Your task to perform on an android device: What's on my calendar tomorrow? Image 0: 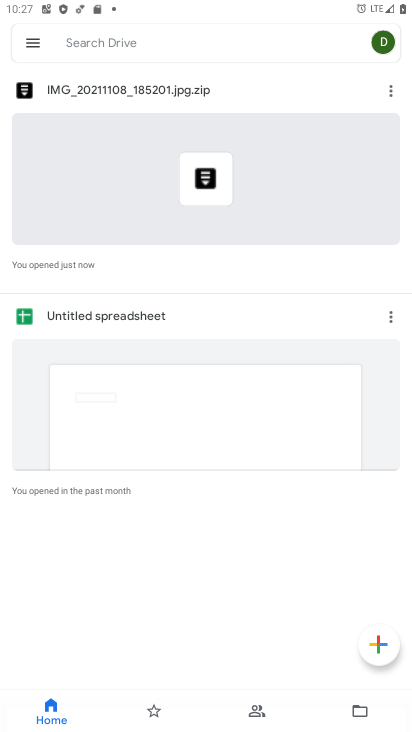
Step 0: press home button
Your task to perform on an android device: What's on my calendar tomorrow? Image 1: 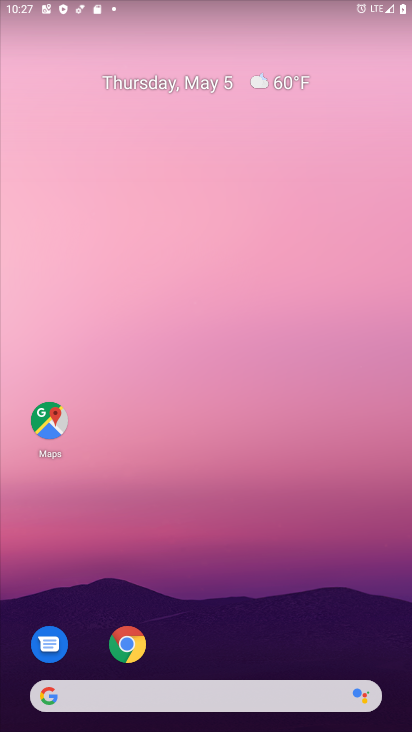
Step 1: drag from (228, 589) to (287, 99)
Your task to perform on an android device: What's on my calendar tomorrow? Image 2: 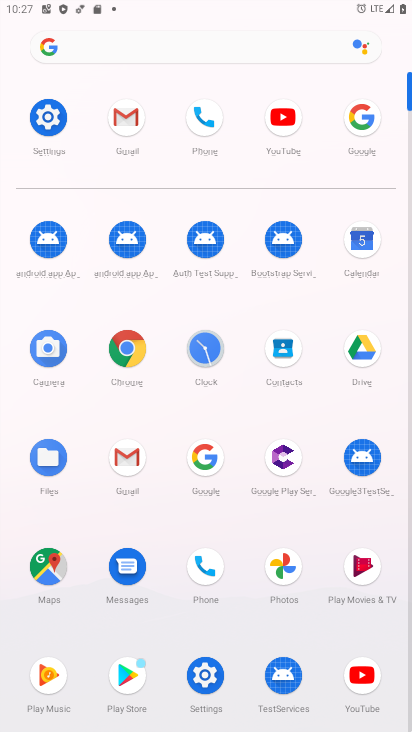
Step 2: click (352, 244)
Your task to perform on an android device: What's on my calendar tomorrow? Image 3: 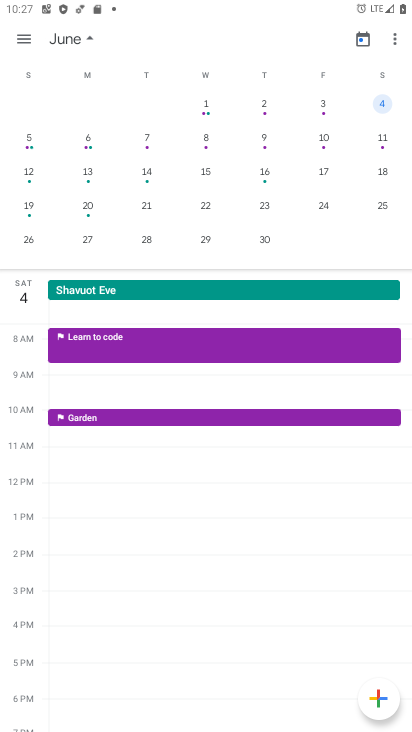
Step 3: drag from (69, 170) to (405, 198)
Your task to perform on an android device: What's on my calendar tomorrow? Image 4: 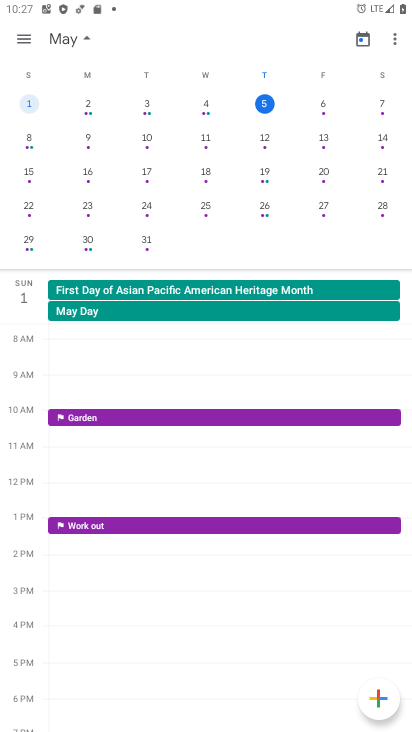
Step 4: click (320, 111)
Your task to perform on an android device: What's on my calendar tomorrow? Image 5: 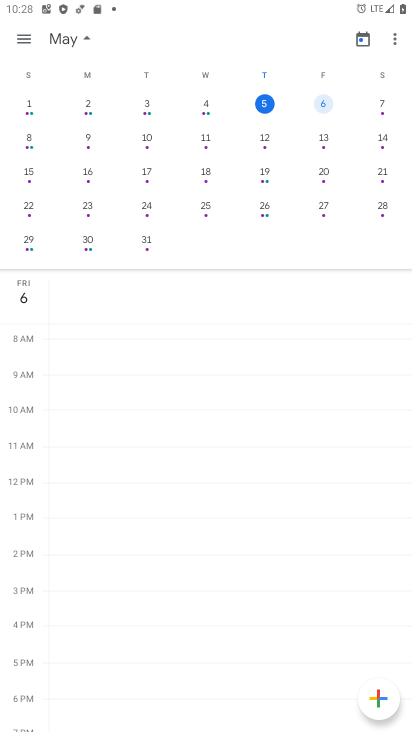
Step 5: task complete